Your task to perform on an android device: Go to accessibility settings Image 0: 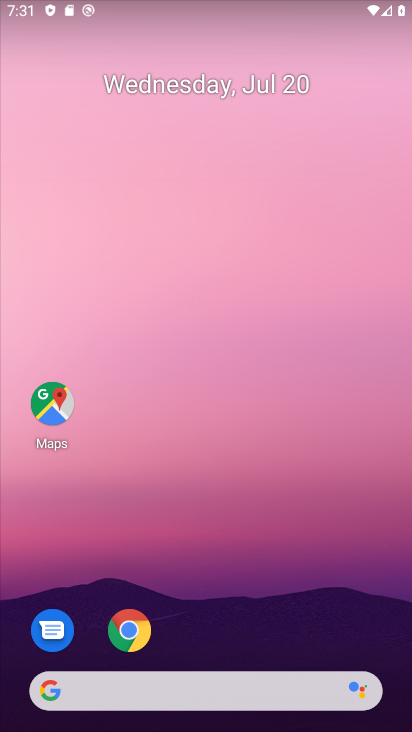
Step 0: drag from (244, 687) to (253, 25)
Your task to perform on an android device: Go to accessibility settings Image 1: 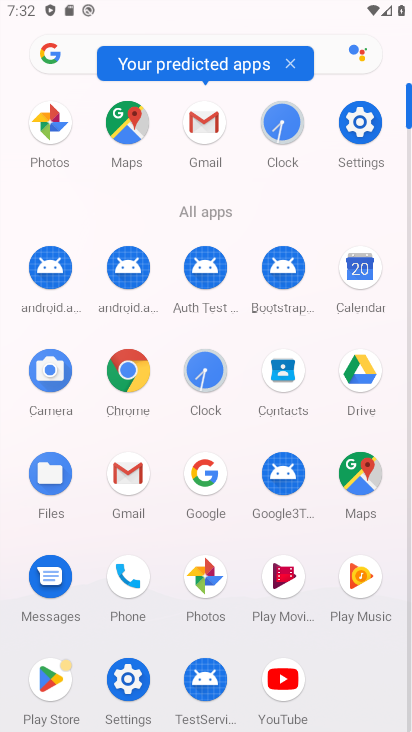
Step 1: click (364, 137)
Your task to perform on an android device: Go to accessibility settings Image 2: 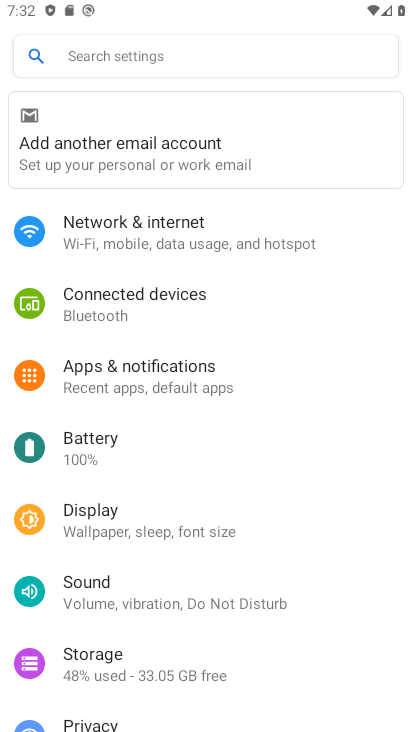
Step 2: drag from (236, 600) to (237, 356)
Your task to perform on an android device: Go to accessibility settings Image 3: 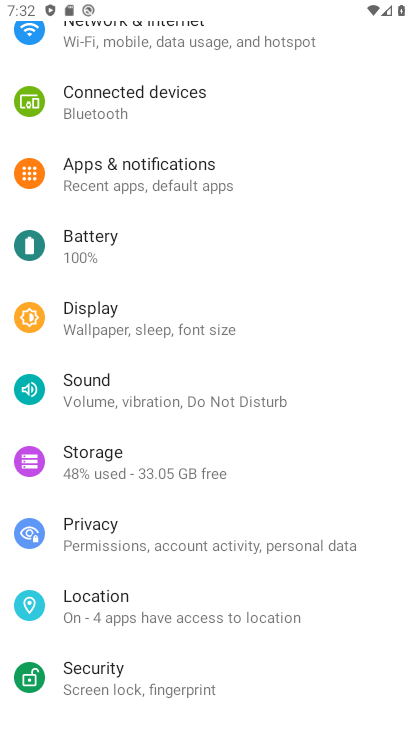
Step 3: drag from (167, 562) to (183, 260)
Your task to perform on an android device: Go to accessibility settings Image 4: 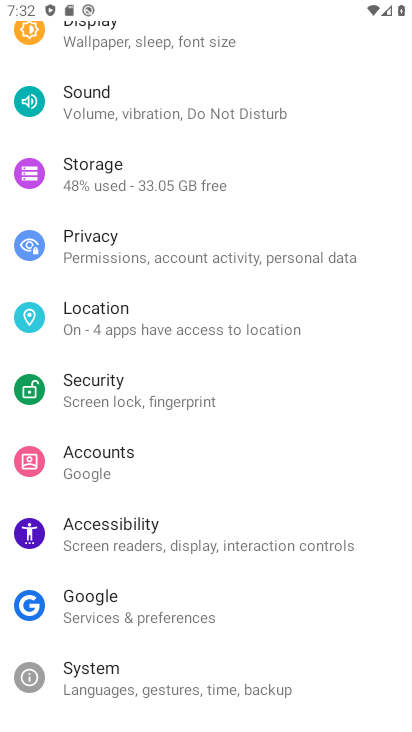
Step 4: click (223, 535)
Your task to perform on an android device: Go to accessibility settings Image 5: 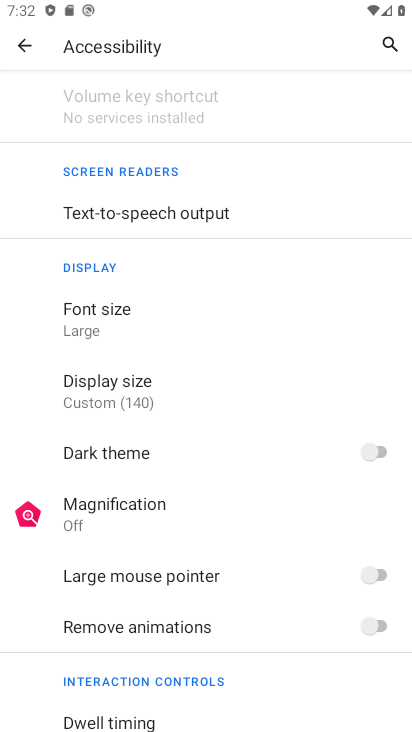
Step 5: task complete